Your task to perform on an android device: toggle improve location accuracy Image 0: 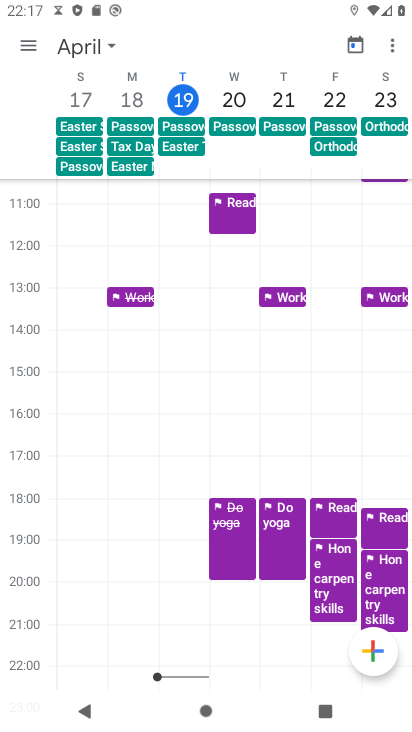
Step 0: press home button
Your task to perform on an android device: toggle improve location accuracy Image 1: 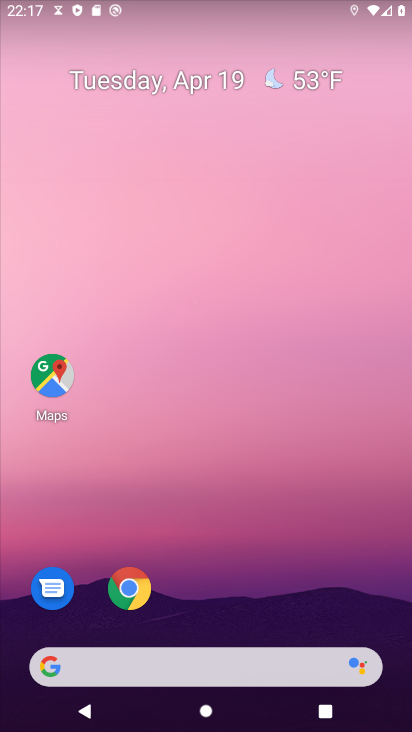
Step 1: drag from (240, 618) to (331, 10)
Your task to perform on an android device: toggle improve location accuracy Image 2: 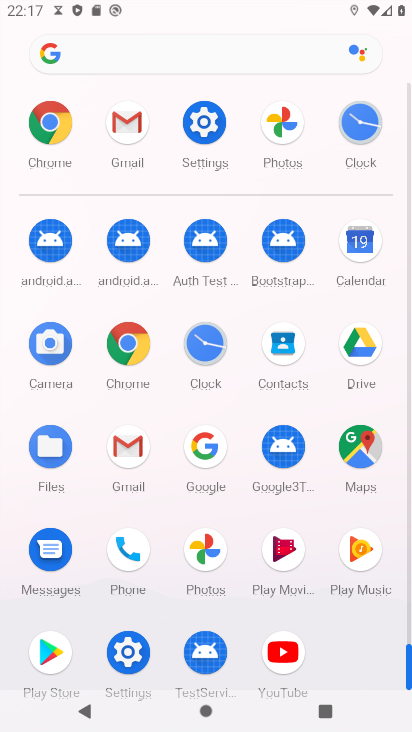
Step 2: click (205, 121)
Your task to perform on an android device: toggle improve location accuracy Image 3: 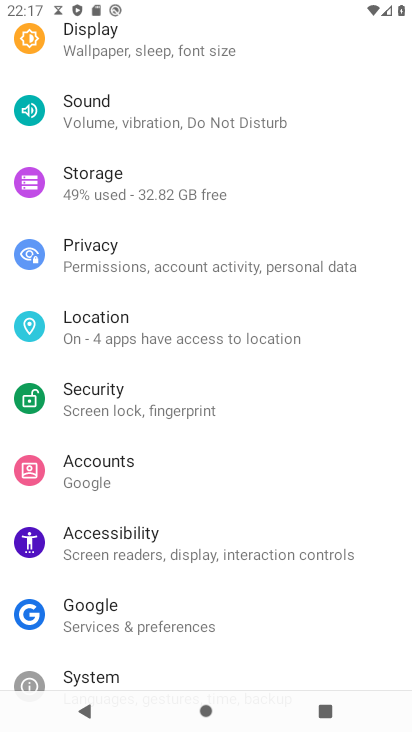
Step 3: click (136, 334)
Your task to perform on an android device: toggle improve location accuracy Image 4: 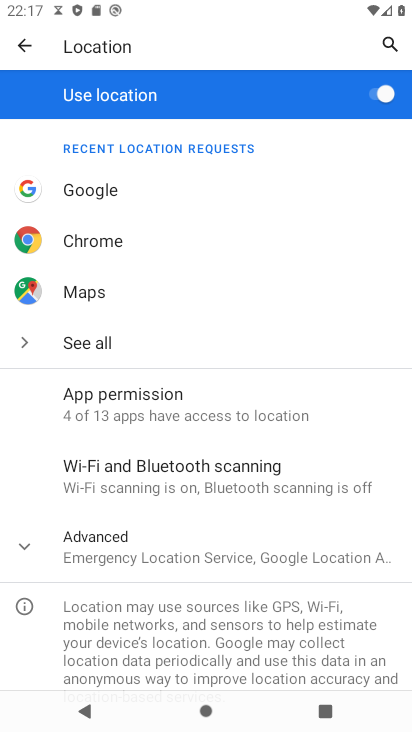
Step 4: click (186, 554)
Your task to perform on an android device: toggle improve location accuracy Image 5: 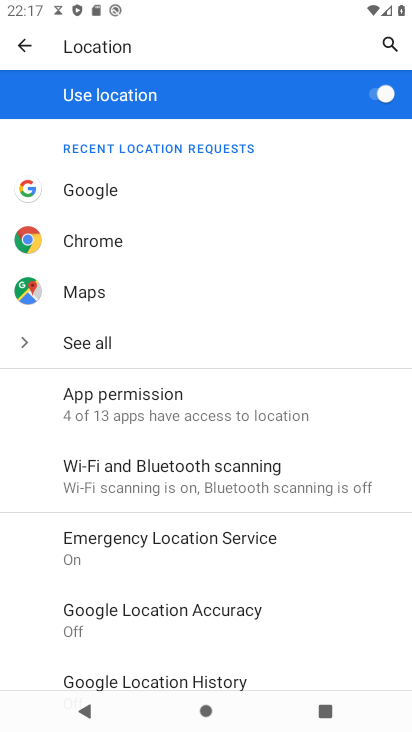
Step 5: click (189, 612)
Your task to perform on an android device: toggle improve location accuracy Image 6: 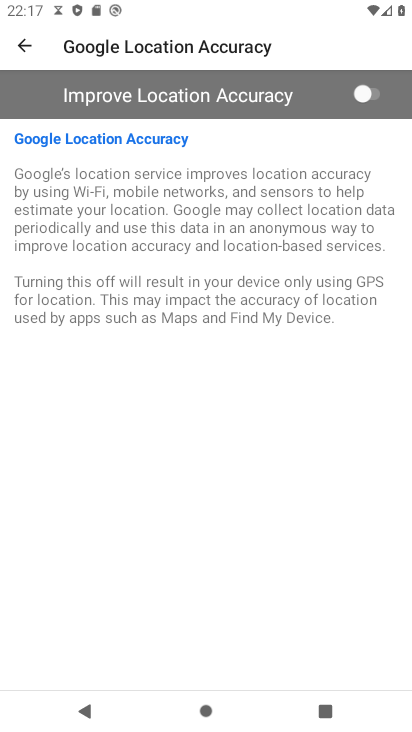
Step 6: click (363, 96)
Your task to perform on an android device: toggle improve location accuracy Image 7: 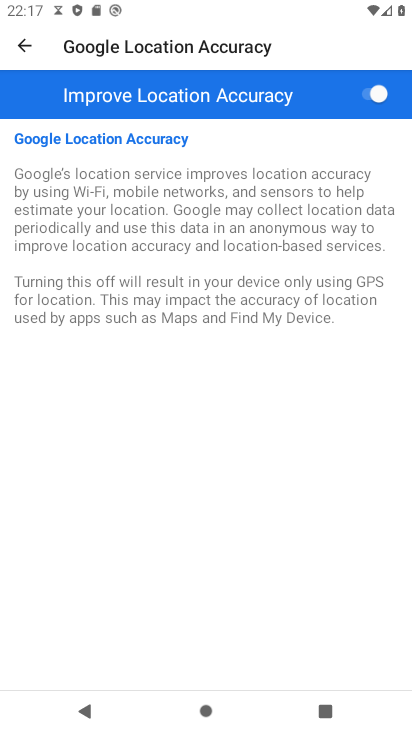
Step 7: task complete